Your task to perform on an android device: visit the assistant section in the google photos Image 0: 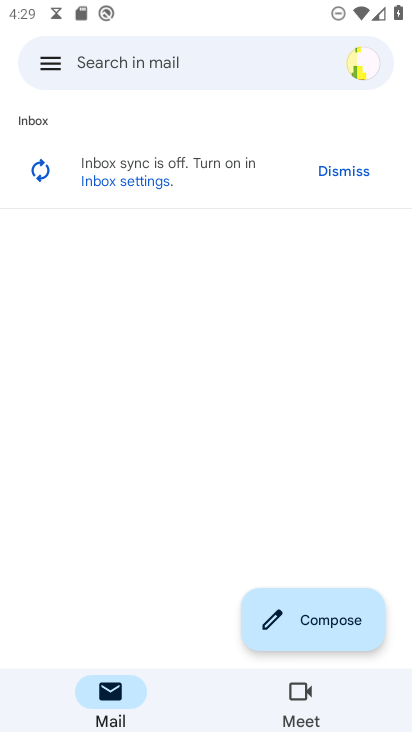
Step 0: click (57, 68)
Your task to perform on an android device: visit the assistant section in the google photos Image 1: 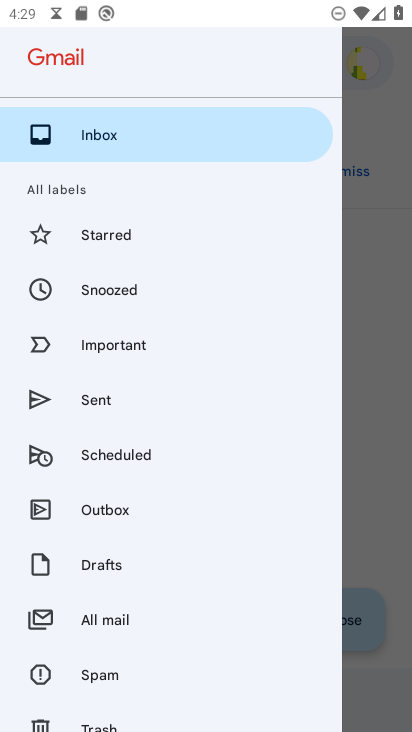
Step 1: press home button
Your task to perform on an android device: visit the assistant section in the google photos Image 2: 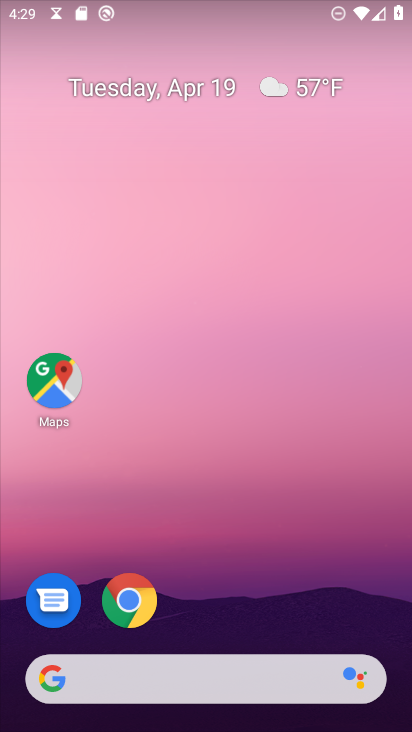
Step 2: drag from (322, 597) to (269, 259)
Your task to perform on an android device: visit the assistant section in the google photos Image 3: 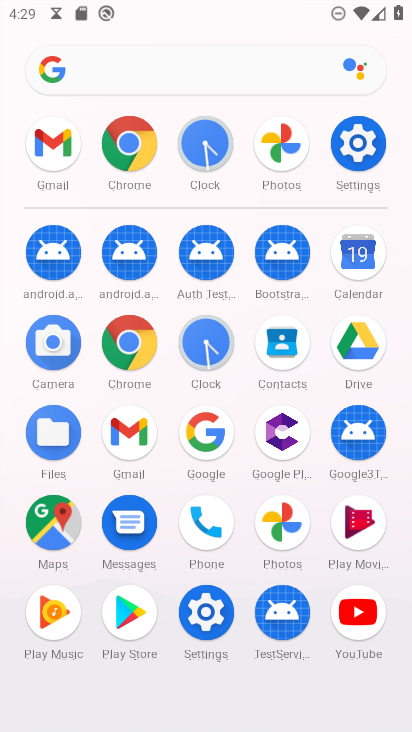
Step 3: click (288, 144)
Your task to perform on an android device: visit the assistant section in the google photos Image 4: 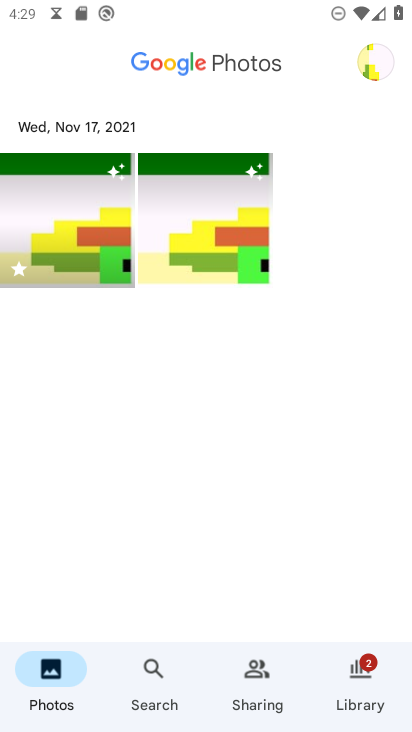
Step 4: click (348, 701)
Your task to perform on an android device: visit the assistant section in the google photos Image 5: 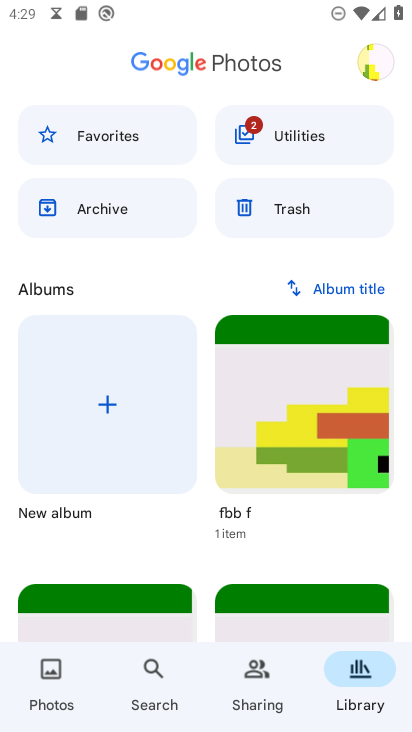
Step 5: click (272, 699)
Your task to perform on an android device: visit the assistant section in the google photos Image 6: 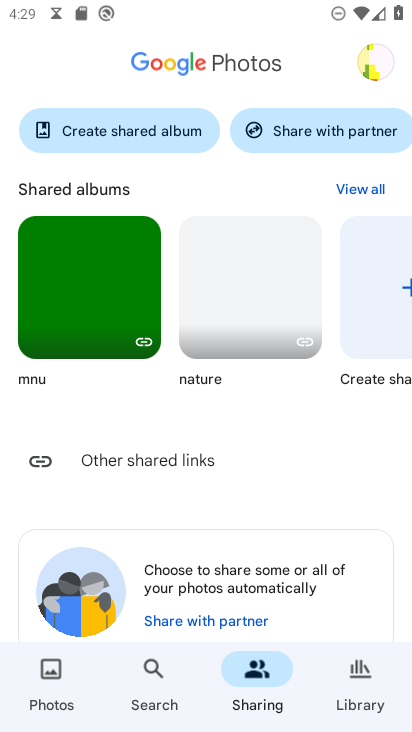
Step 6: task complete